Your task to perform on an android device: Open Youtube and go to the subscriptions tab Image 0: 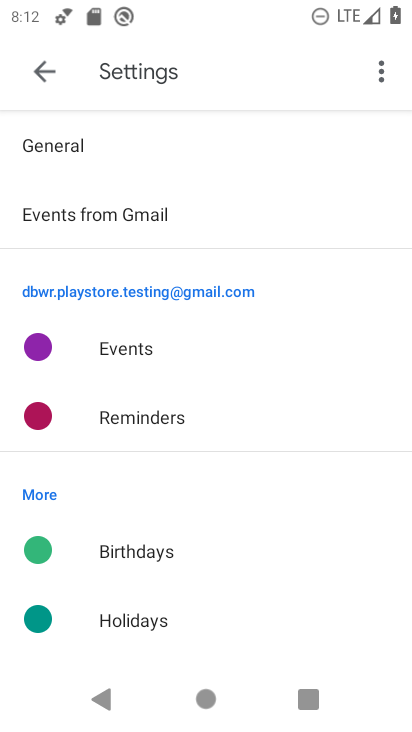
Step 0: press home button
Your task to perform on an android device: Open Youtube and go to the subscriptions tab Image 1: 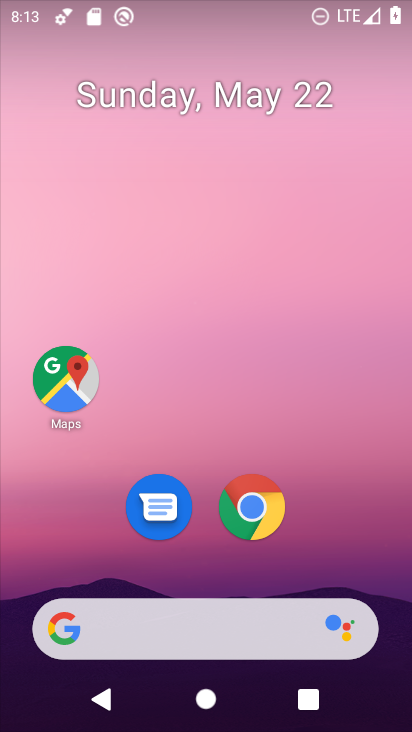
Step 1: click (342, 12)
Your task to perform on an android device: Open Youtube and go to the subscriptions tab Image 2: 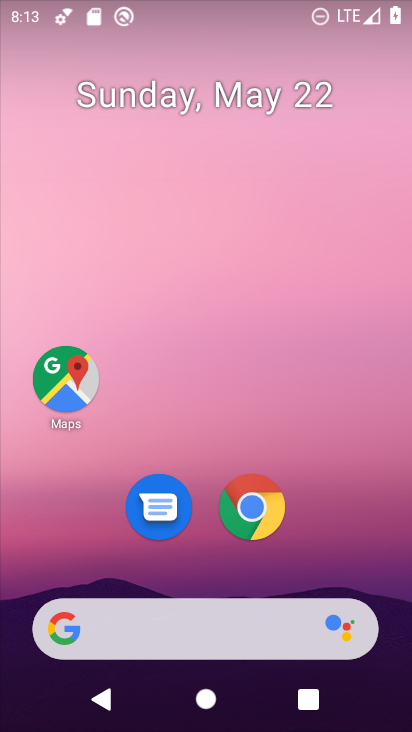
Step 2: drag from (240, 597) to (257, 26)
Your task to perform on an android device: Open Youtube and go to the subscriptions tab Image 3: 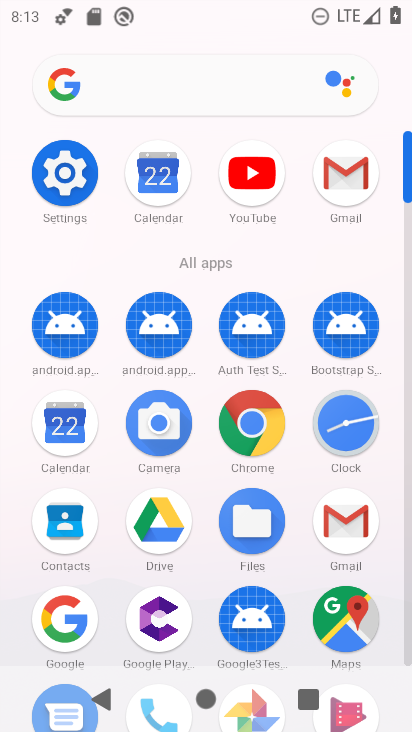
Step 3: click (263, 198)
Your task to perform on an android device: Open Youtube and go to the subscriptions tab Image 4: 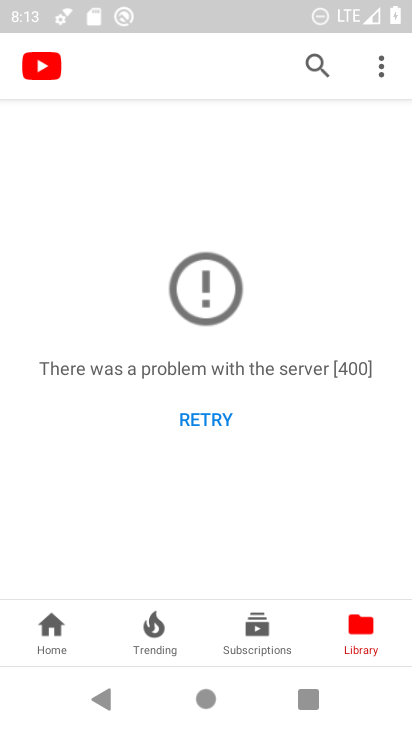
Step 4: click (377, 65)
Your task to perform on an android device: Open Youtube and go to the subscriptions tab Image 5: 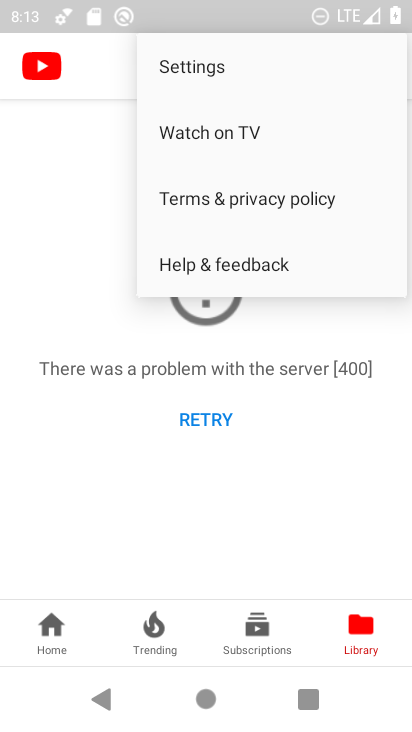
Step 5: click (249, 632)
Your task to perform on an android device: Open Youtube and go to the subscriptions tab Image 6: 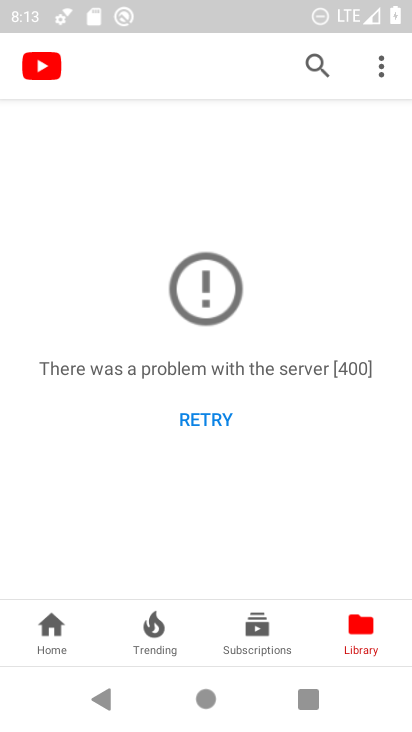
Step 6: click (252, 629)
Your task to perform on an android device: Open Youtube and go to the subscriptions tab Image 7: 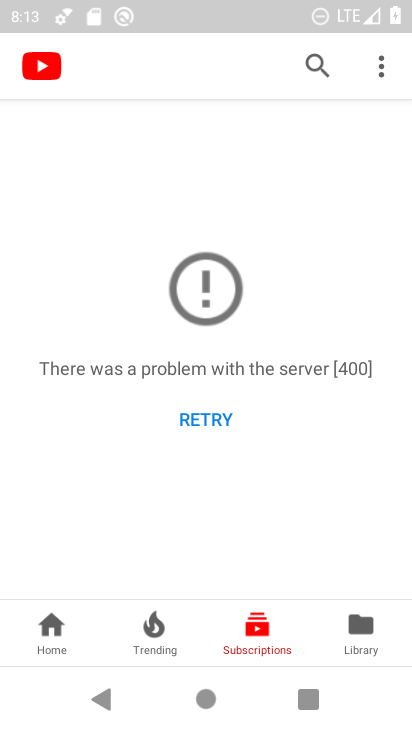
Step 7: task complete